Your task to perform on an android device: turn notification dots off Image 0: 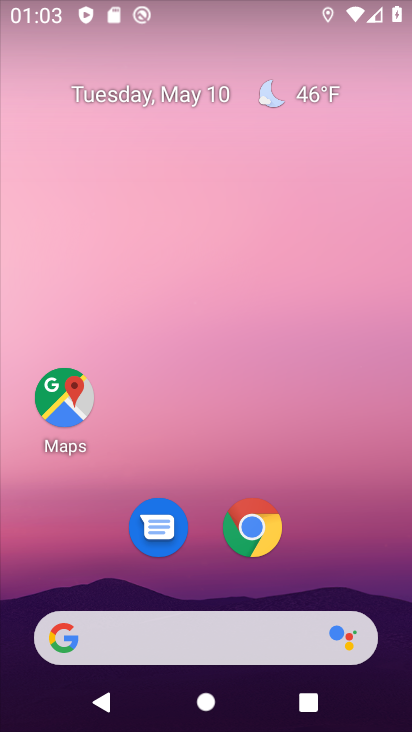
Step 0: drag from (332, 494) to (216, 170)
Your task to perform on an android device: turn notification dots off Image 1: 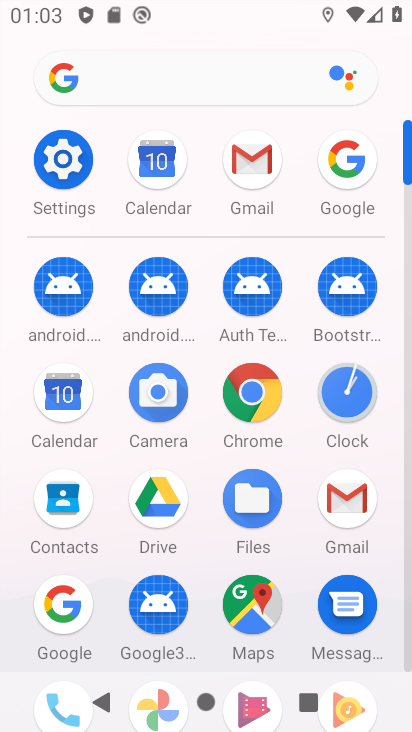
Step 1: click (67, 152)
Your task to perform on an android device: turn notification dots off Image 2: 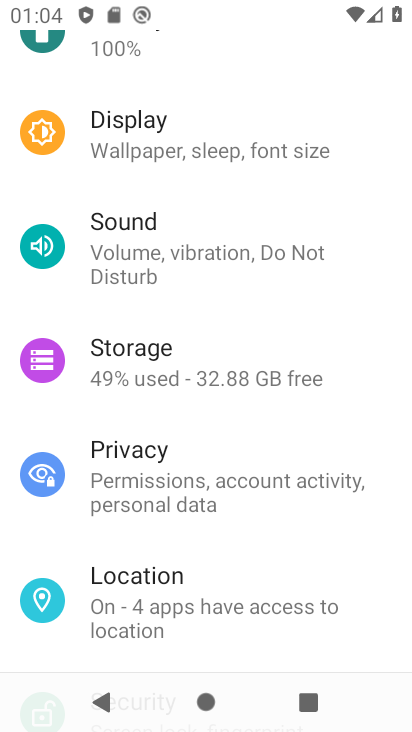
Step 2: drag from (194, 183) to (189, 518)
Your task to perform on an android device: turn notification dots off Image 3: 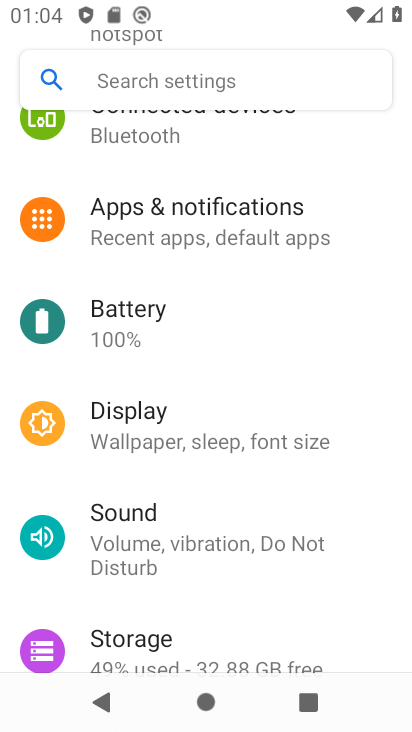
Step 3: click (176, 240)
Your task to perform on an android device: turn notification dots off Image 4: 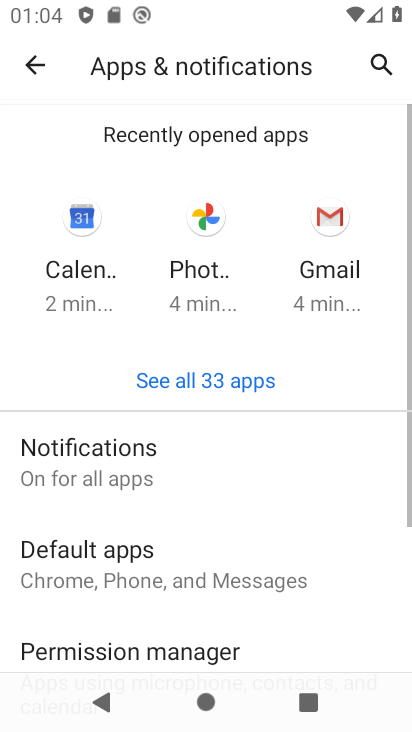
Step 4: drag from (189, 639) to (202, 280)
Your task to perform on an android device: turn notification dots off Image 5: 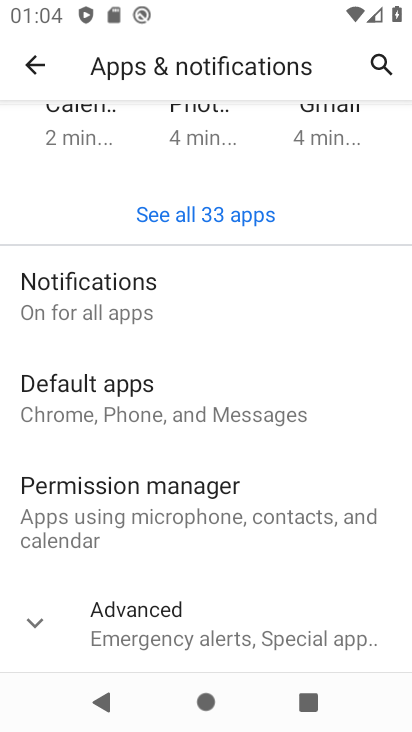
Step 5: click (135, 294)
Your task to perform on an android device: turn notification dots off Image 6: 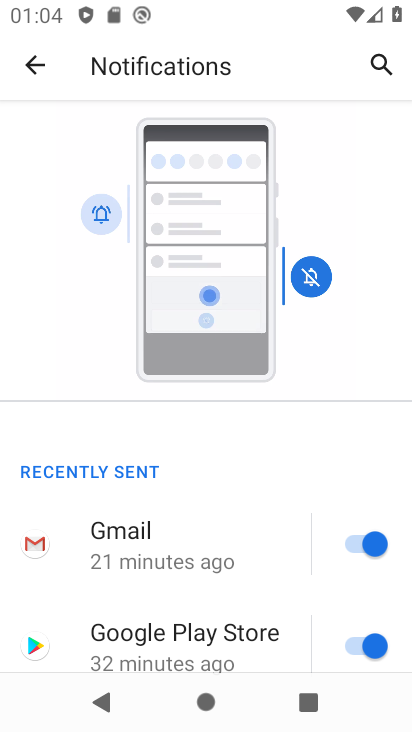
Step 6: drag from (191, 605) to (224, 142)
Your task to perform on an android device: turn notification dots off Image 7: 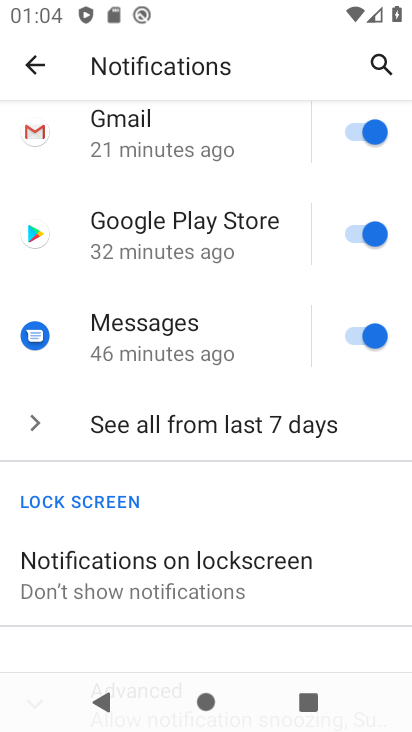
Step 7: drag from (162, 606) to (191, 244)
Your task to perform on an android device: turn notification dots off Image 8: 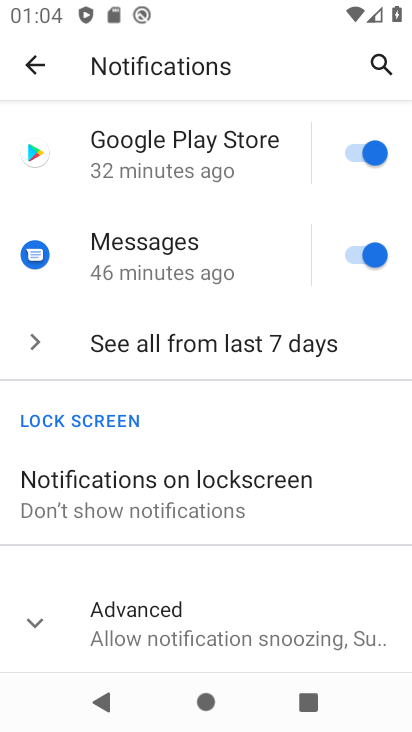
Step 8: click (179, 624)
Your task to perform on an android device: turn notification dots off Image 9: 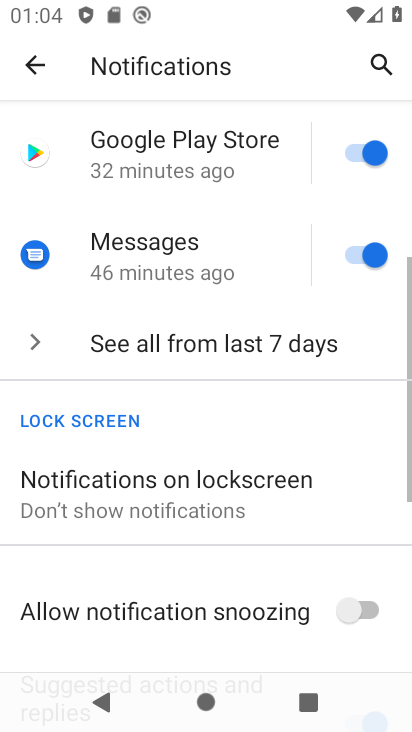
Step 9: task complete